Your task to perform on an android device: check data usage Image 0: 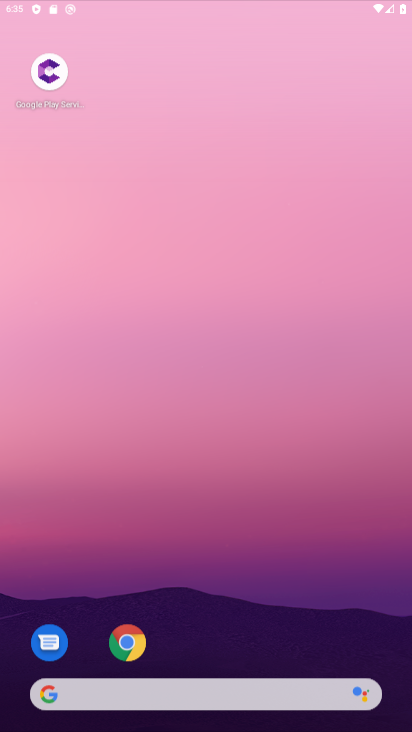
Step 0: press back button
Your task to perform on an android device: check data usage Image 1: 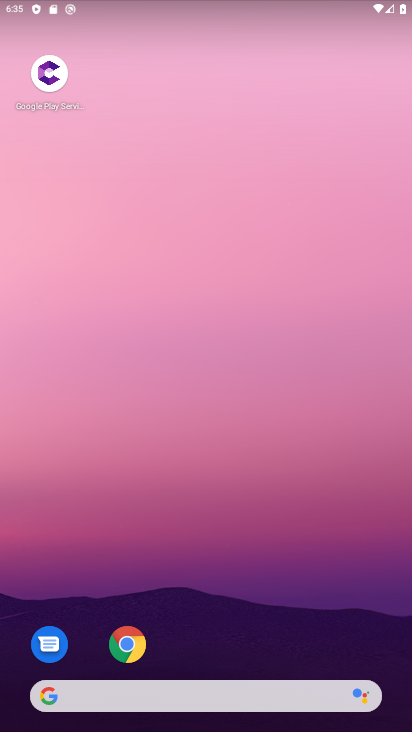
Step 1: press home button
Your task to perform on an android device: check data usage Image 2: 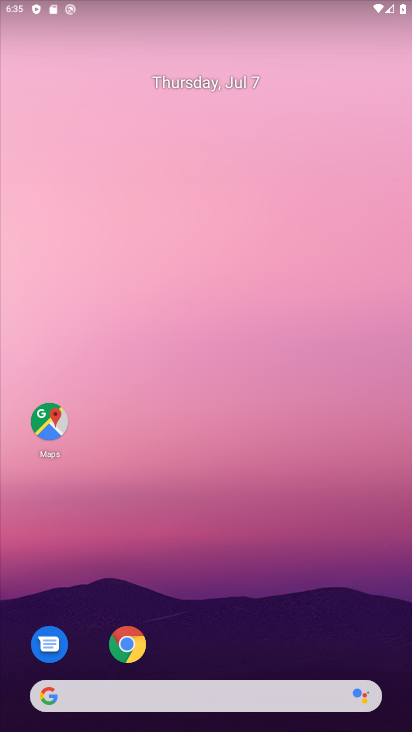
Step 2: drag from (186, 347) to (163, 170)
Your task to perform on an android device: check data usage Image 3: 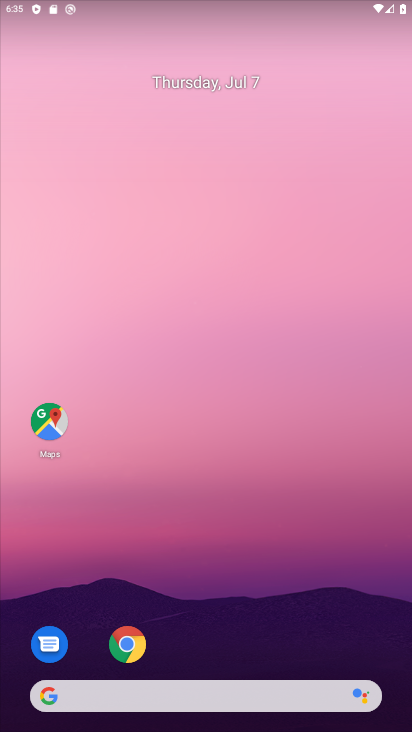
Step 3: drag from (198, 587) to (202, 223)
Your task to perform on an android device: check data usage Image 4: 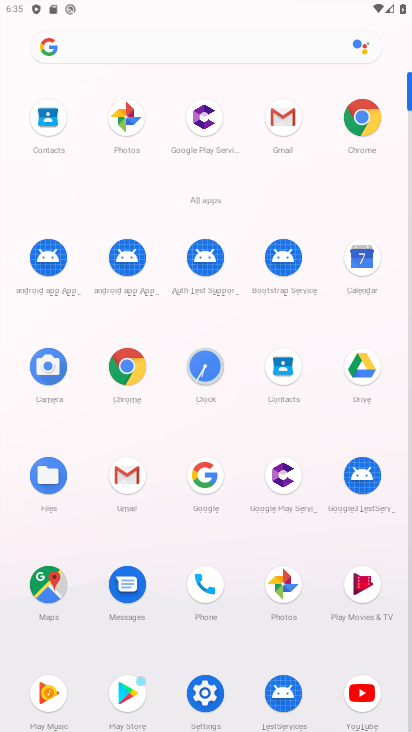
Step 4: click (200, 680)
Your task to perform on an android device: check data usage Image 5: 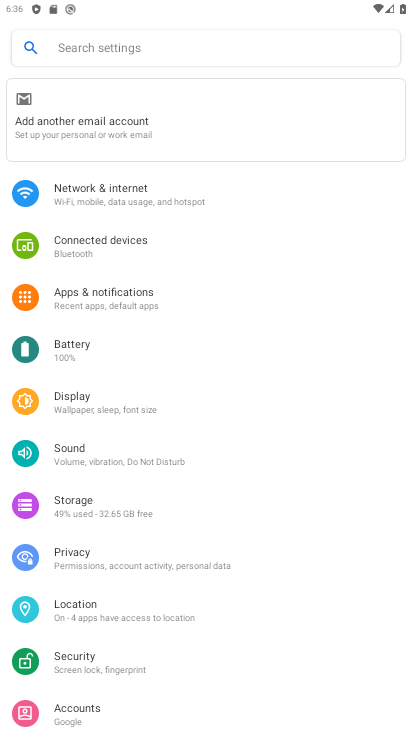
Step 5: click (98, 196)
Your task to perform on an android device: check data usage Image 6: 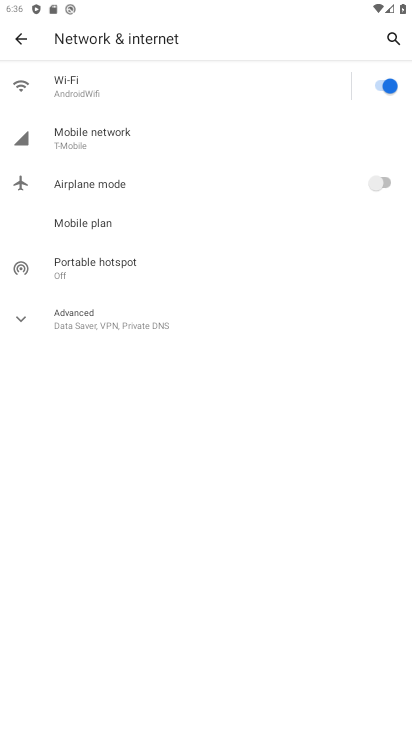
Step 6: click (125, 139)
Your task to perform on an android device: check data usage Image 7: 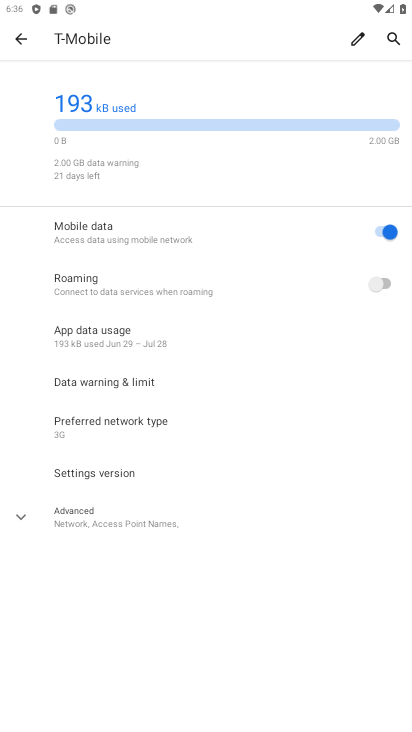
Step 7: task complete